Your task to perform on an android device: Set the phone to "Do not disturb". Image 0: 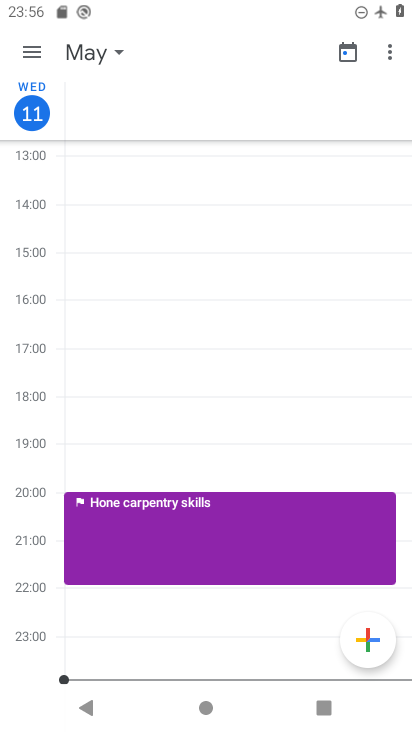
Step 0: press home button
Your task to perform on an android device: Set the phone to "Do not disturb". Image 1: 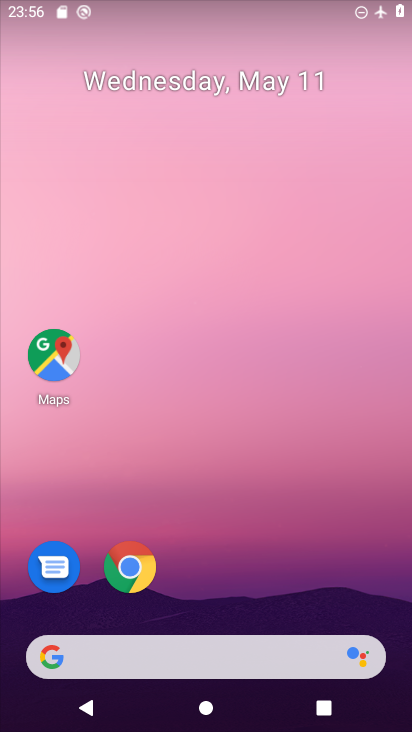
Step 1: drag from (218, 694) to (296, 98)
Your task to perform on an android device: Set the phone to "Do not disturb". Image 2: 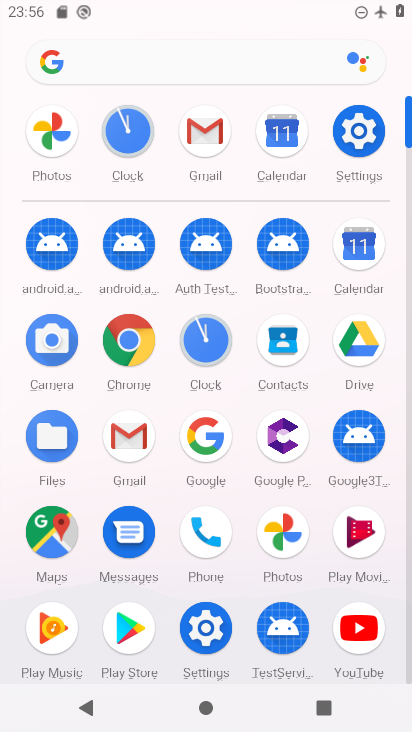
Step 2: click (362, 147)
Your task to perform on an android device: Set the phone to "Do not disturb". Image 3: 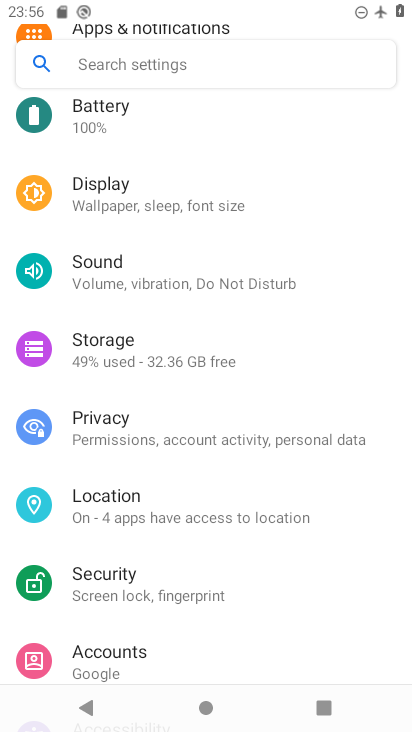
Step 3: click (310, 271)
Your task to perform on an android device: Set the phone to "Do not disturb". Image 4: 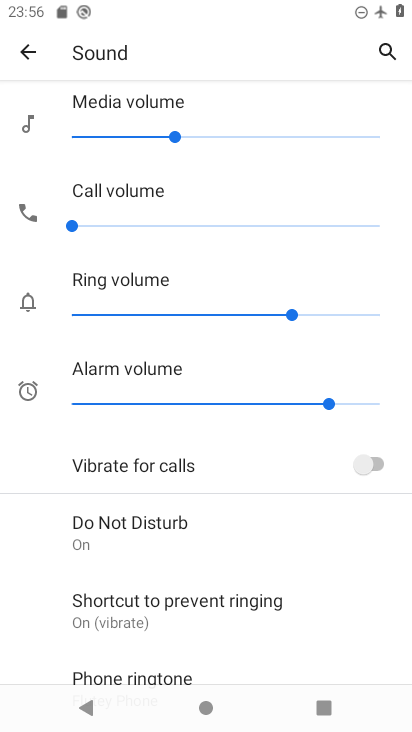
Step 4: click (166, 535)
Your task to perform on an android device: Set the phone to "Do not disturb". Image 5: 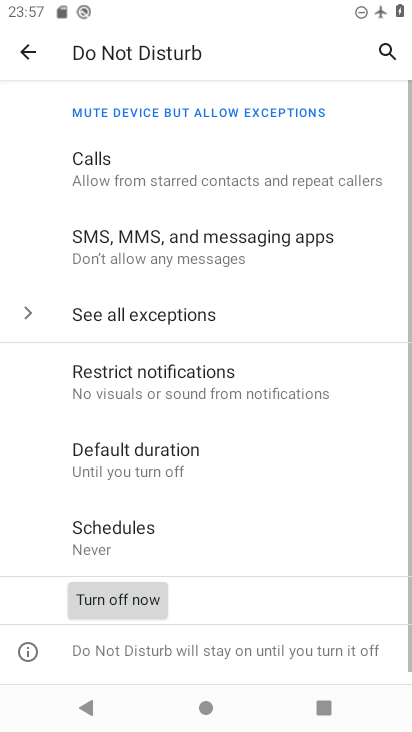
Step 5: task complete